Your task to perform on an android device: Go to eBay Image 0: 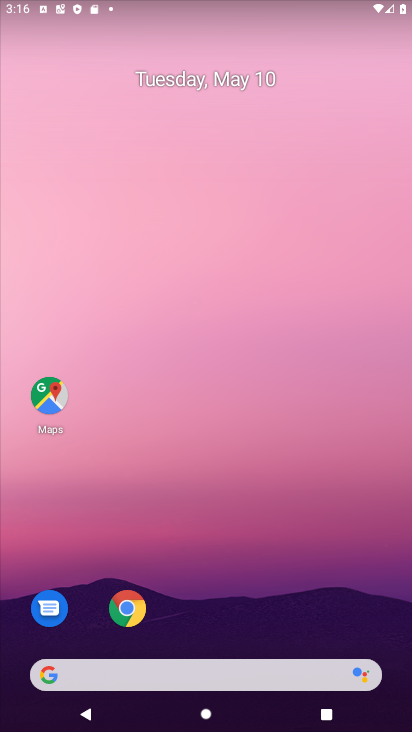
Step 0: click (122, 605)
Your task to perform on an android device: Go to eBay Image 1: 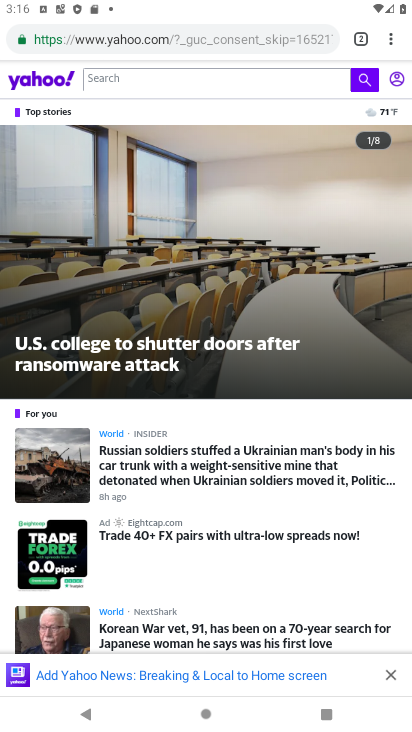
Step 1: click (102, 37)
Your task to perform on an android device: Go to eBay Image 2: 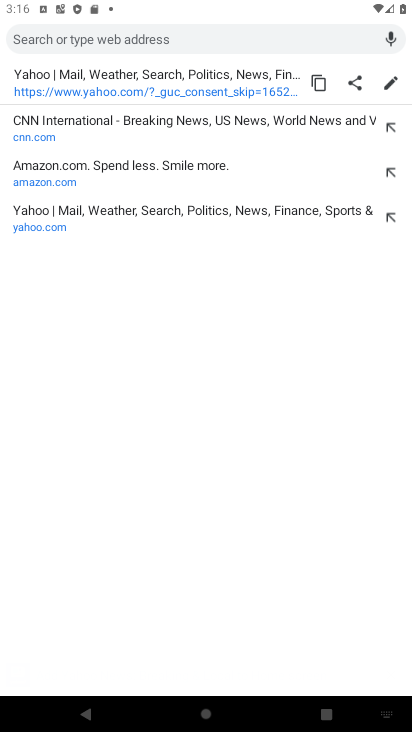
Step 2: type "ebay"
Your task to perform on an android device: Go to eBay Image 3: 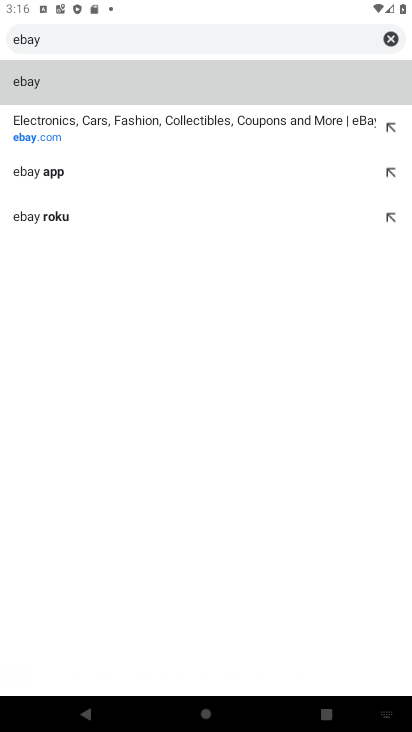
Step 3: click (18, 113)
Your task to perform on an android device: Go to eBay Image 4: 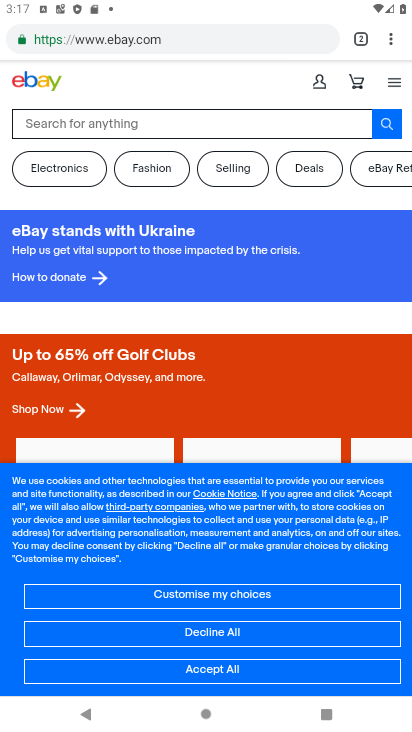
Step 4: task complete